Your task to perform on an android device: see creations saved in the google photos Image 0: 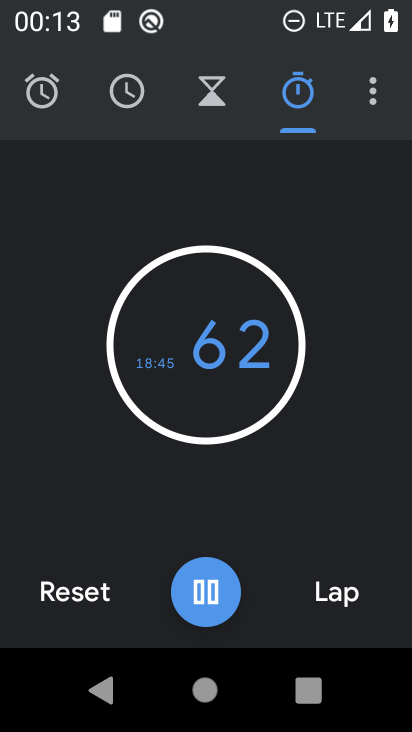
Step 0: press home button
Your task to perform on an android device: see creations saved in the google photos Image 1: 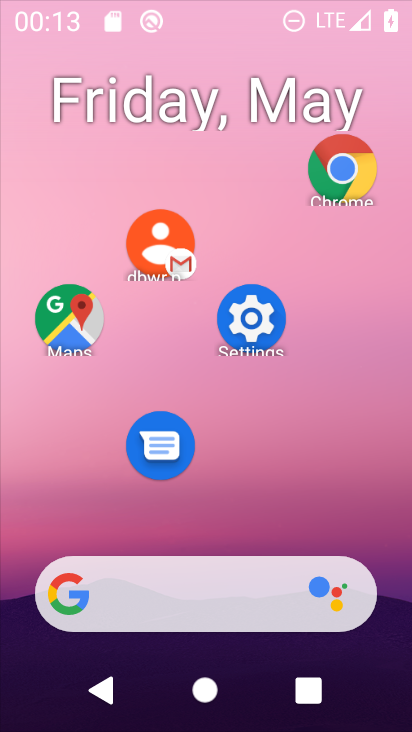
Step 1: drag from (259, 517) to (306, 111)
Your task to perform on an android device: see creations saved in the google photos Image 2: 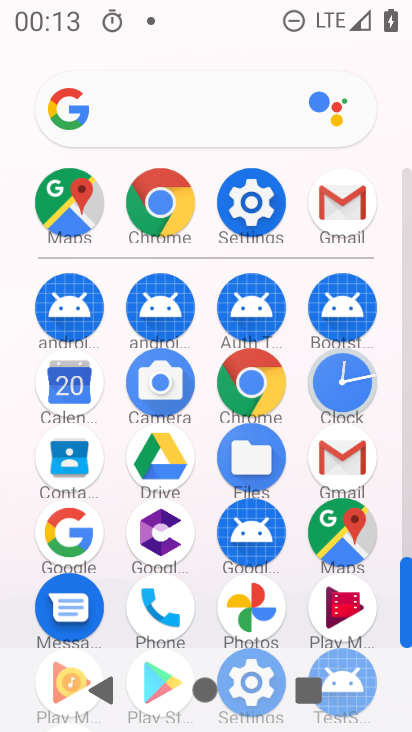
Step 2: click (265, 606)
Your task to perform on an android device: see creations saved in the google photos Image 3: 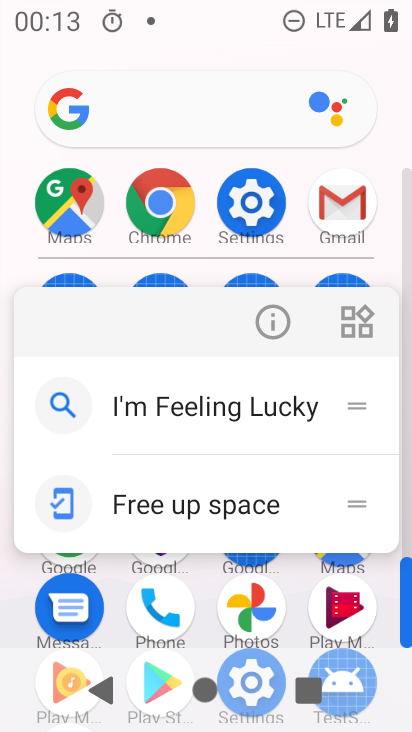
Step 3: click (284, 291)
Your task to perform on an android device: see creations saved in the google photos Image 4: 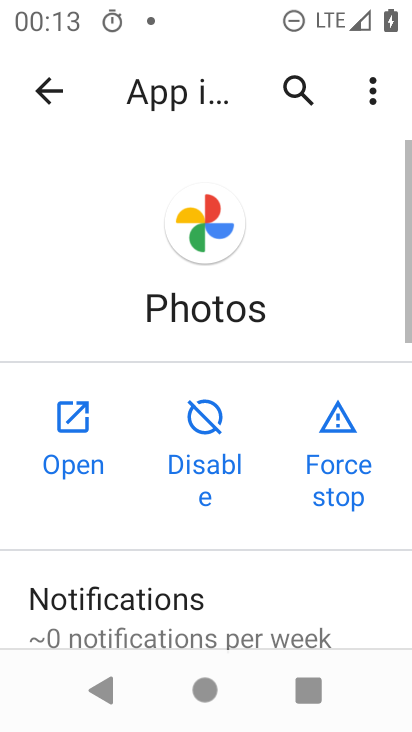
Step 4: click (33, 418)
Your task to perform on an android device: see creations saved in the google photos Image 5: 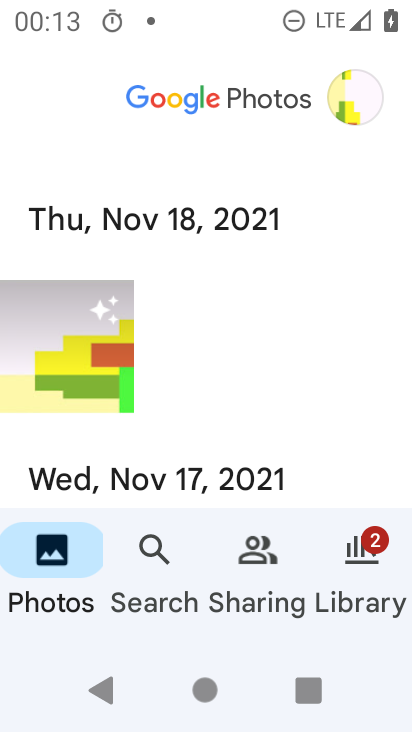
Step 5: click (287, 573)
Your task to perform on an android device: see creations saved in the google photos Image 6: 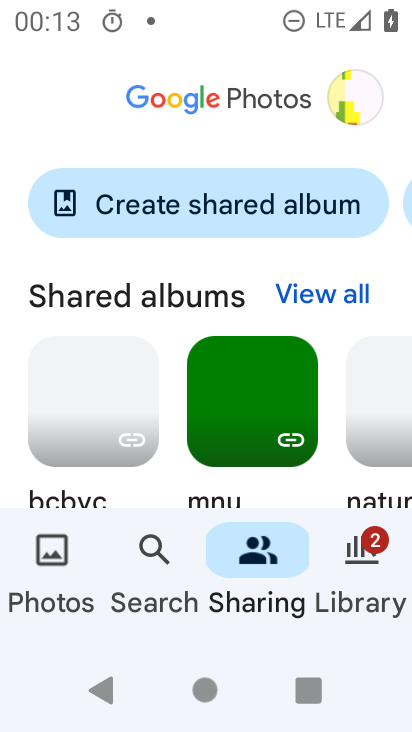
Step 6: click (158, 555)
Your task to perform on an android device: see creations saved in the google photos Image 7: 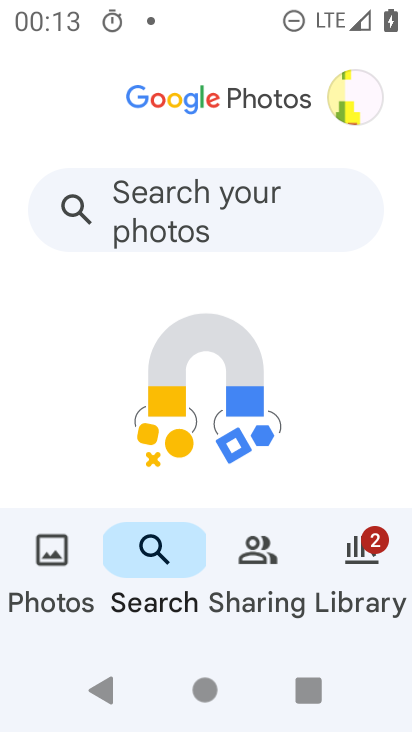
Step 7: click (145, 212)
Your task to perform on an android device: see creations saved in the google photos Image 8: 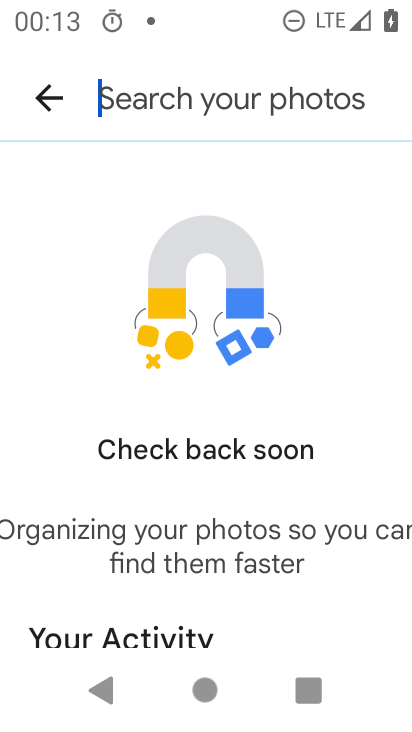
Step 8: drag from (215, 438) to (282, 8)
Your task to perform on an android device: see creations saved in the google photos Image 9: 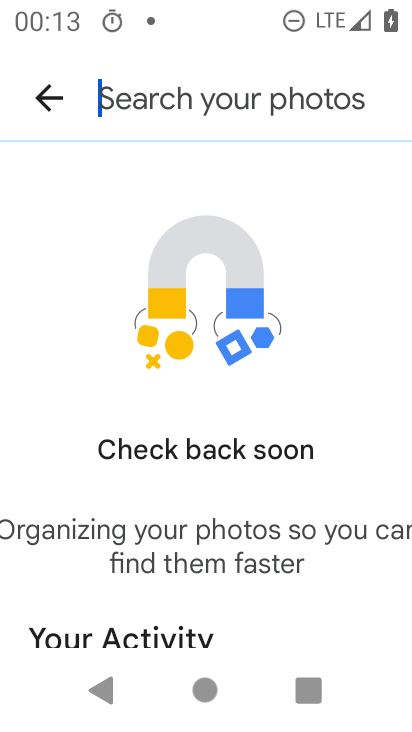
Step 9: drag from (128, 623) to (97, 179)
Your task to perform on an android device: see creations saved in the google photos Image 10: 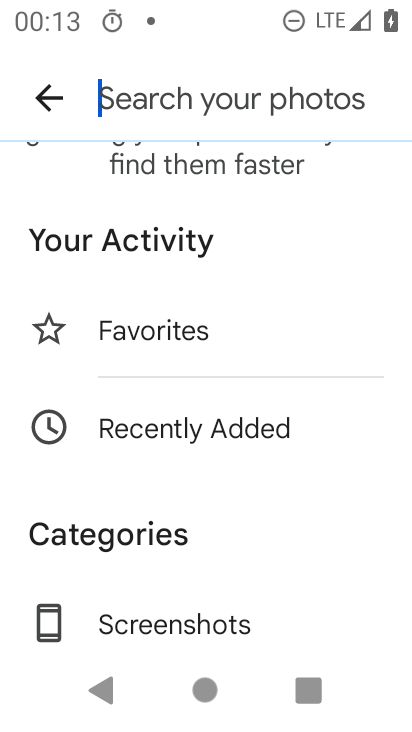
Step 10: drag from (173, 520) to (286, 113)
Your task to perform on an android device: see creations saved in the google photos Image 11: 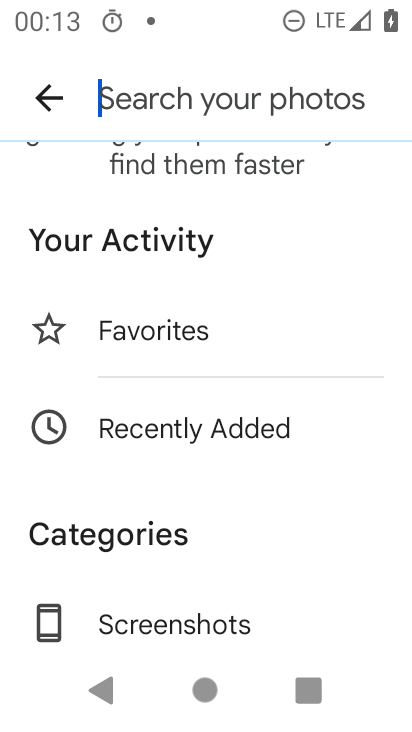
Step 11: drag from (169, 554) to (267, 275)
Your task to perform on an android device: see creations saved in the google photos Image 12: 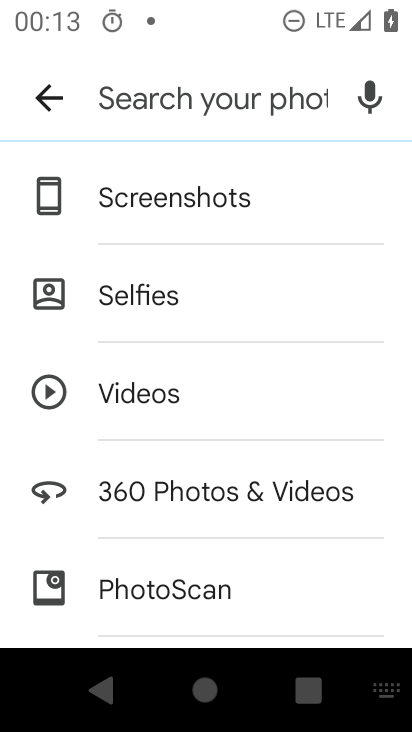
Step 12: drag from (179, 573) to (274, 155)
Your task to perform on an android device: see creations saved in the google photos Image 13: 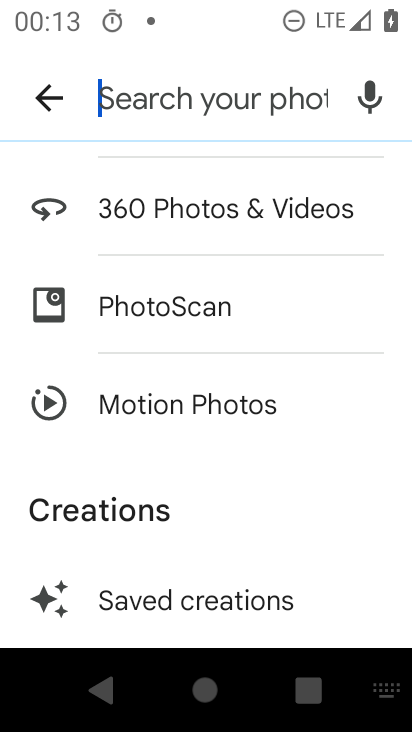
Step 13: click (260, 251)
Your task to perform on an android device: see creations saved in the google photos Image 14: 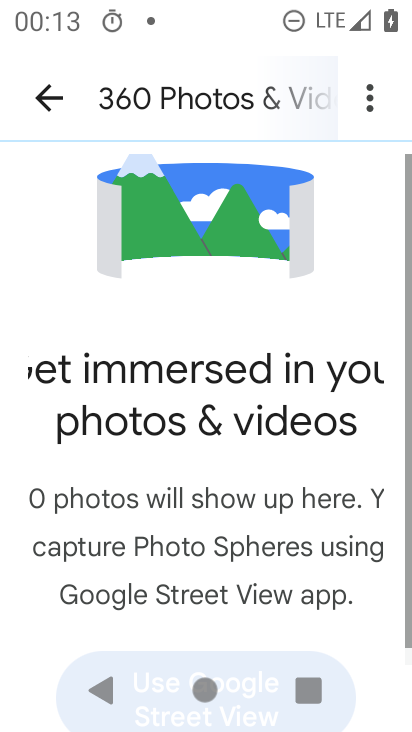
Step 14: drag from (197, 598) to (238, 280)
Your task to perform on an android device: see creations saved in the google photos Image 15: 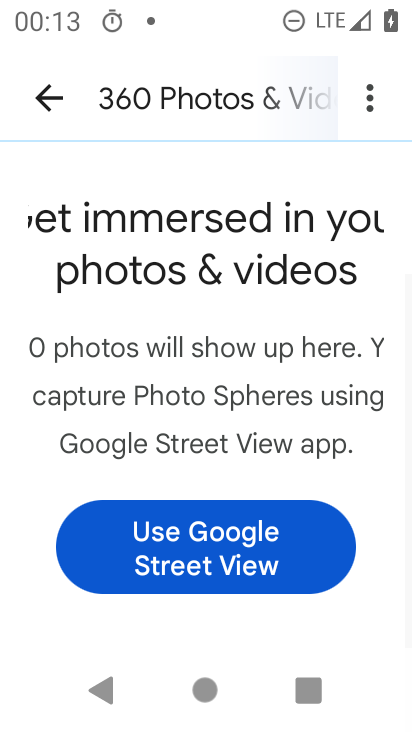
Step 15: click (34, 88)
Your task to perform on an android device: see creations saved in the google photos Image 16: 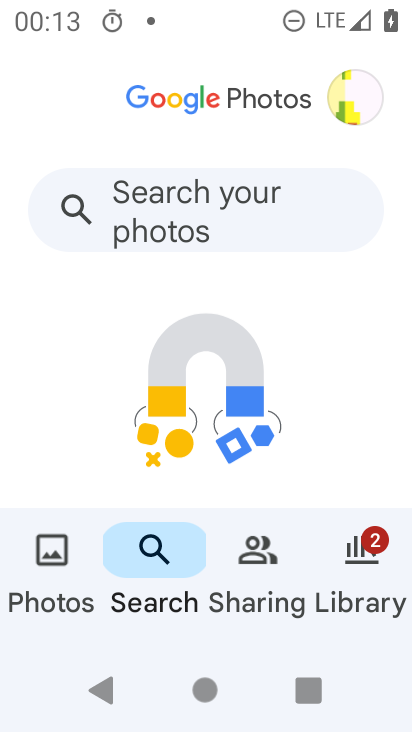
Step 16: click (178, 192)
Your task to perform on an android device: see creations saved in the google photos Image 17: 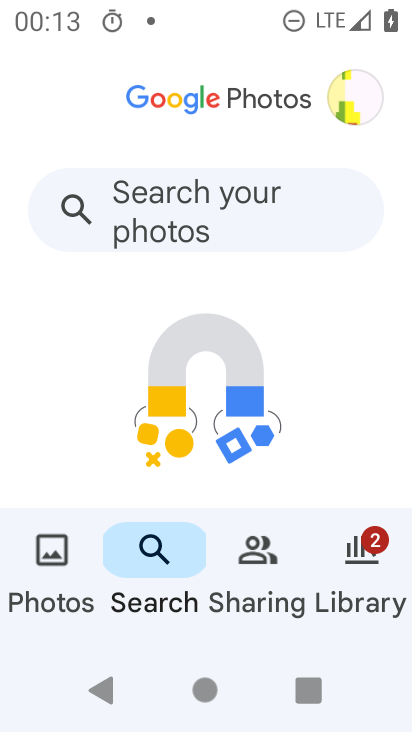
Step 17: click (133, 210)
Your task to perform on an android device: see creations saved in the google photos Image 18: 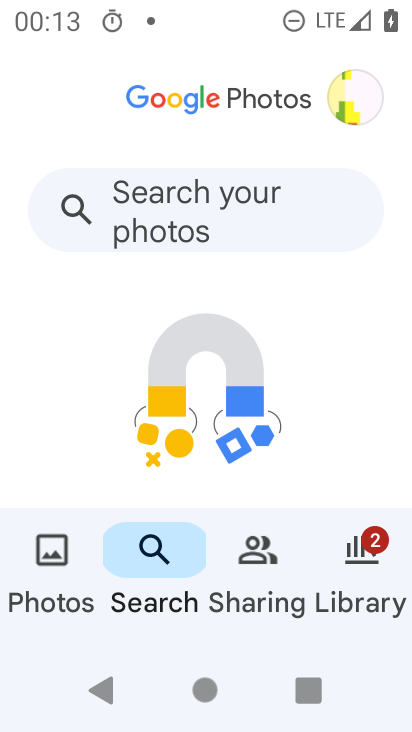
Step 18: click (240, 214)
Your task to perform on an android device: see creations saved in the google photos Image 19: 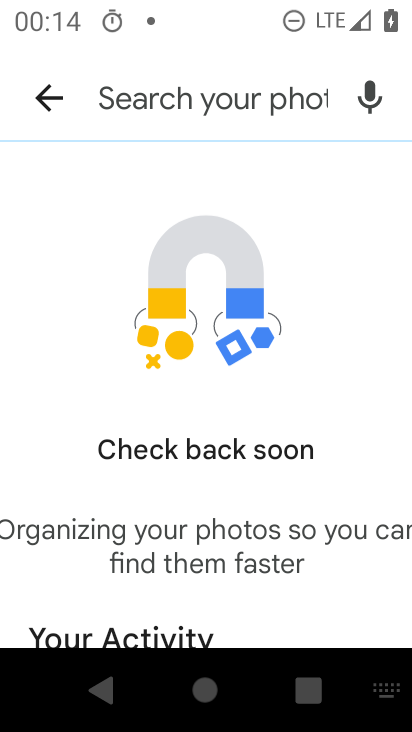
Step 19: drag from (175, 566) to (331, 86)
Your task to perform on an android device: see creations saved in the google photos Image 20: 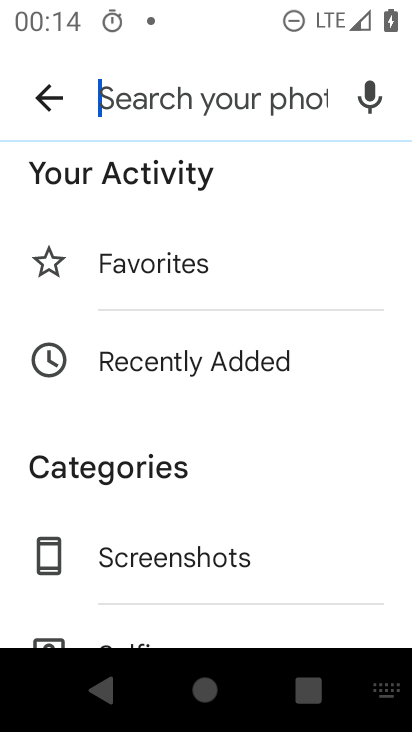
Step 20: drag from (135, 552) to (288, 90)
Your task to perform on an android device: see creations saved in the google photos Image 21: 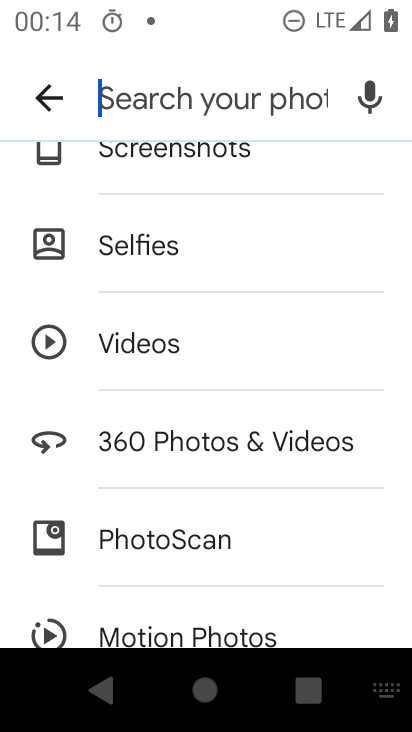
Step 21: drag from (143, 601) to (237, 94)
Your task to perform on an android device: see creations saved in the google photos Image 22: 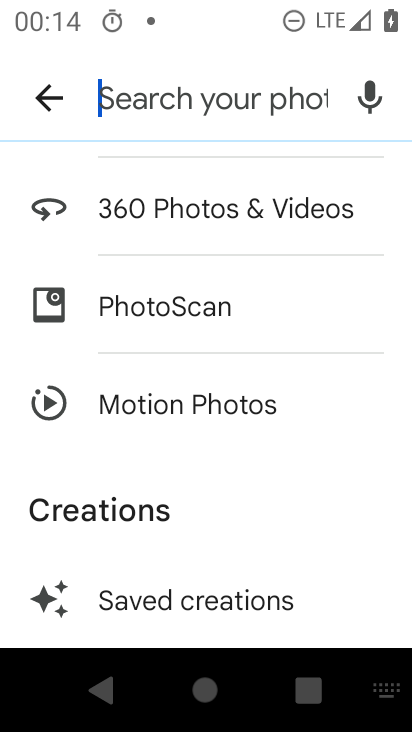
Step 22: click (156, 607)
Your task to perform on an android device: see creations saved in the google photos Image 23: 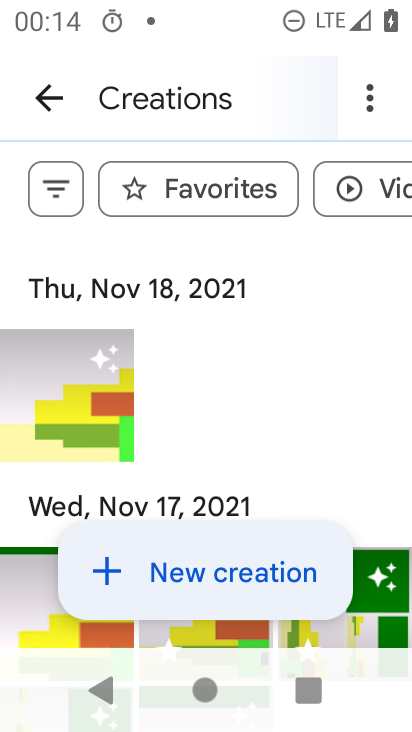
Step 23: task complete